Your task to perform on an android device: Search for flights from NYC to Tokyo Image 0: 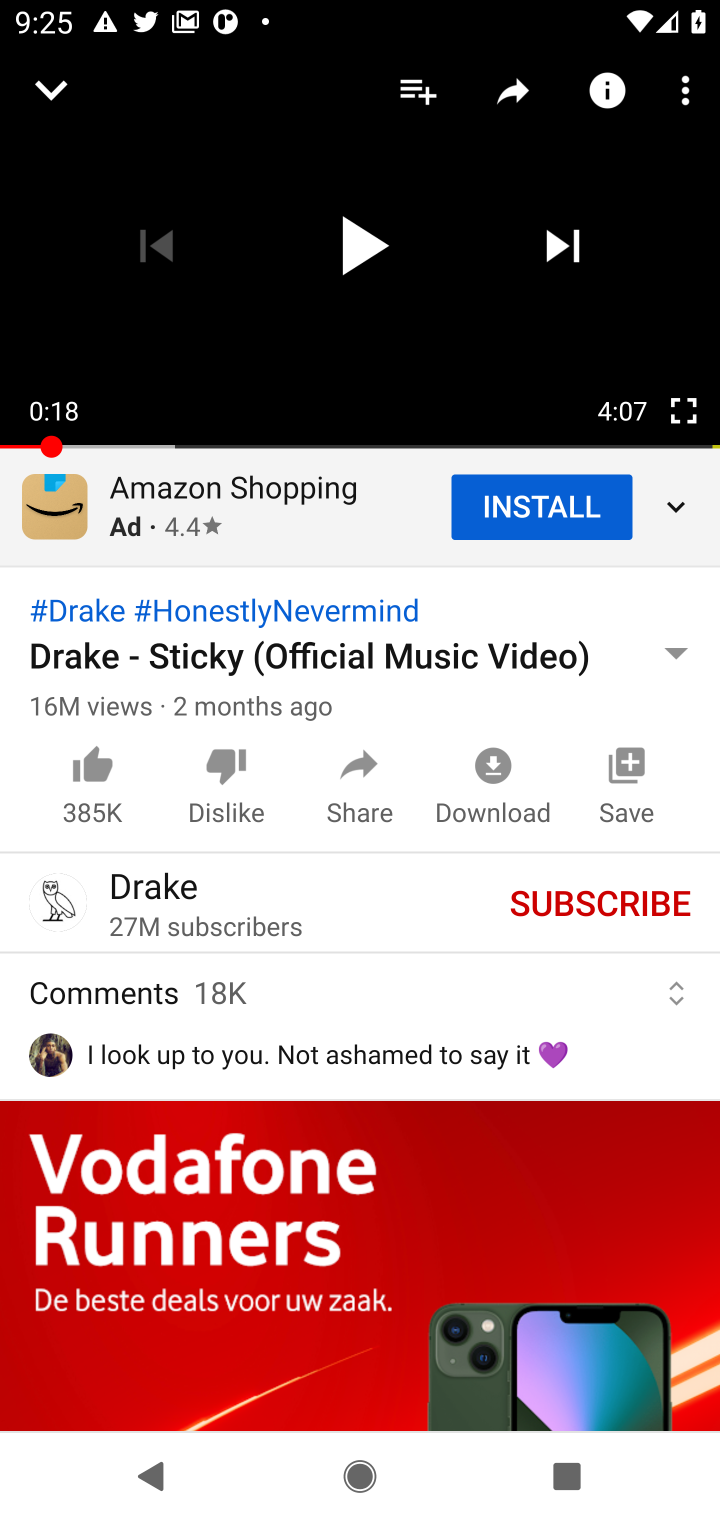
Step 0: press home button
Your task to perform on an android device: Search for flights from NYC to Tokyo Image 1: 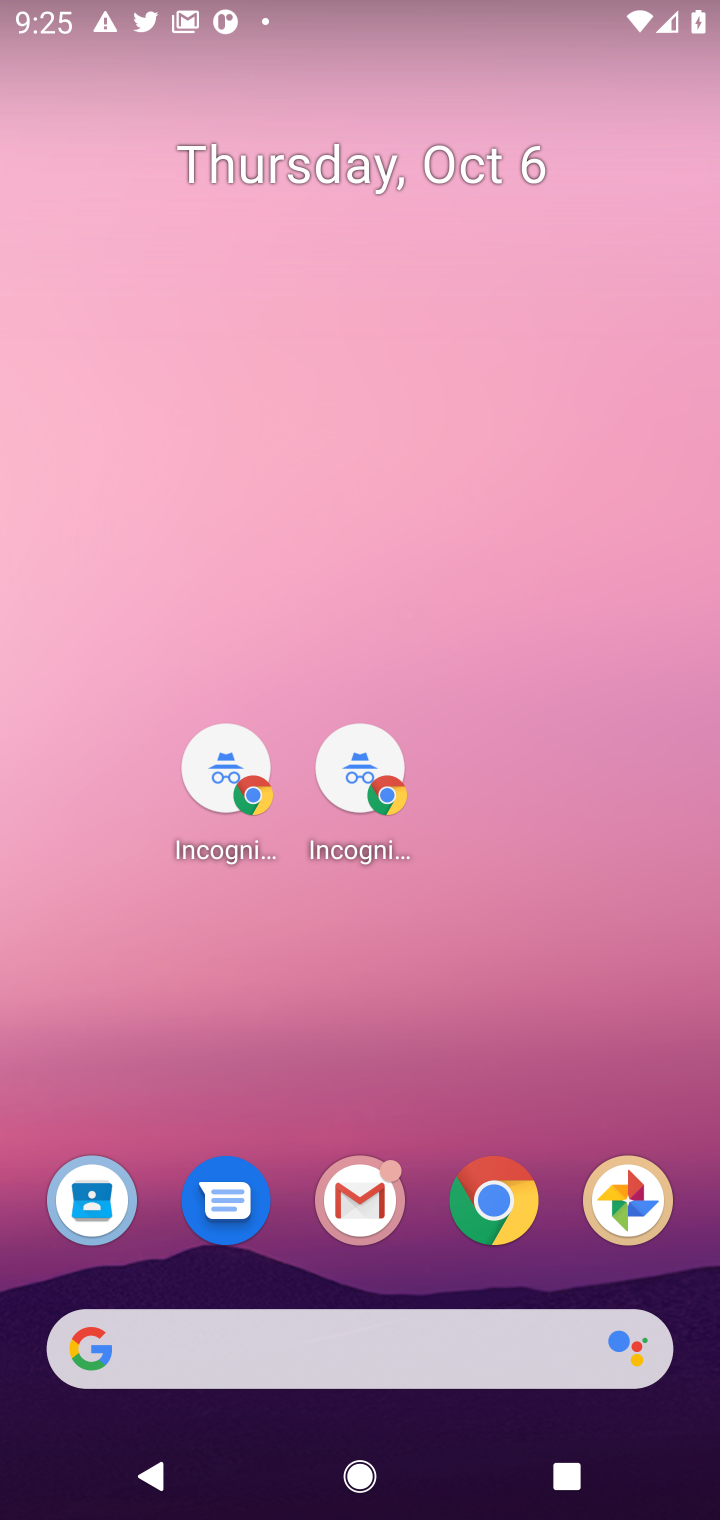
Step 1: click (494, 1192)
Your task to perform on an android device: Search for flights from NYC to Tokyo Image 2: 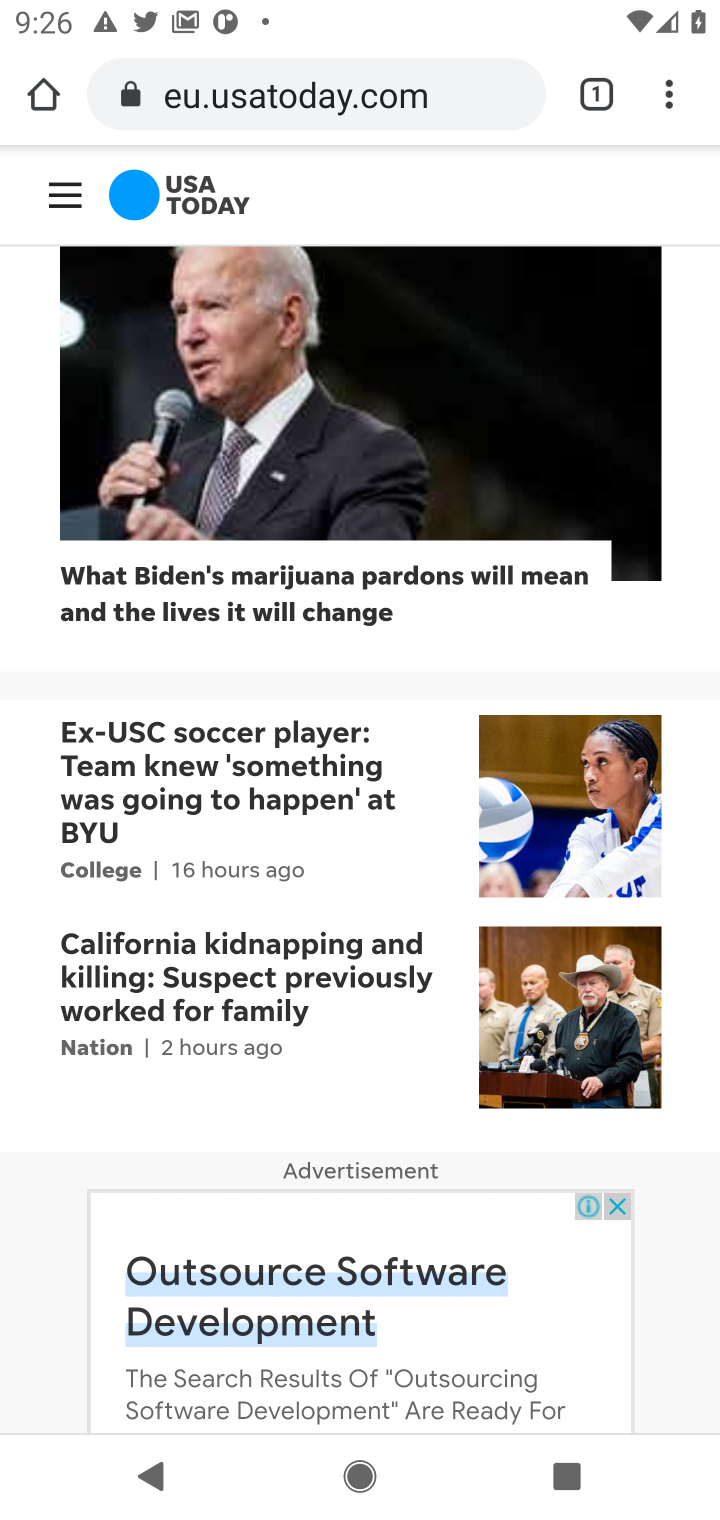
Step 2: click (319, 100)
Your task to perform on an android device: Search for flights from NYC to Tokyo Image 3: 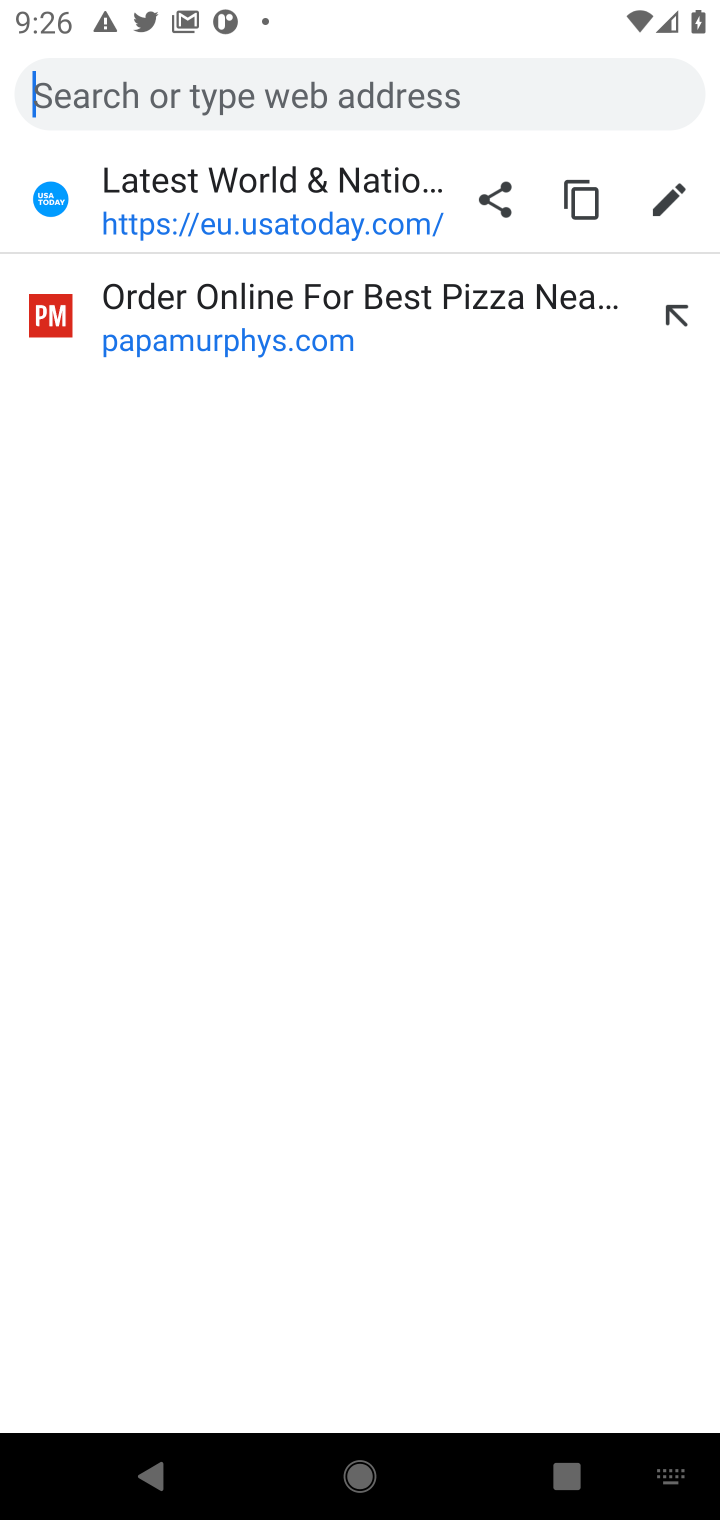
Step 3: type "flight from NYC to Tokyo"
Your task to perform on an android device: Search for flights from NYC to Tokyo Image 4: 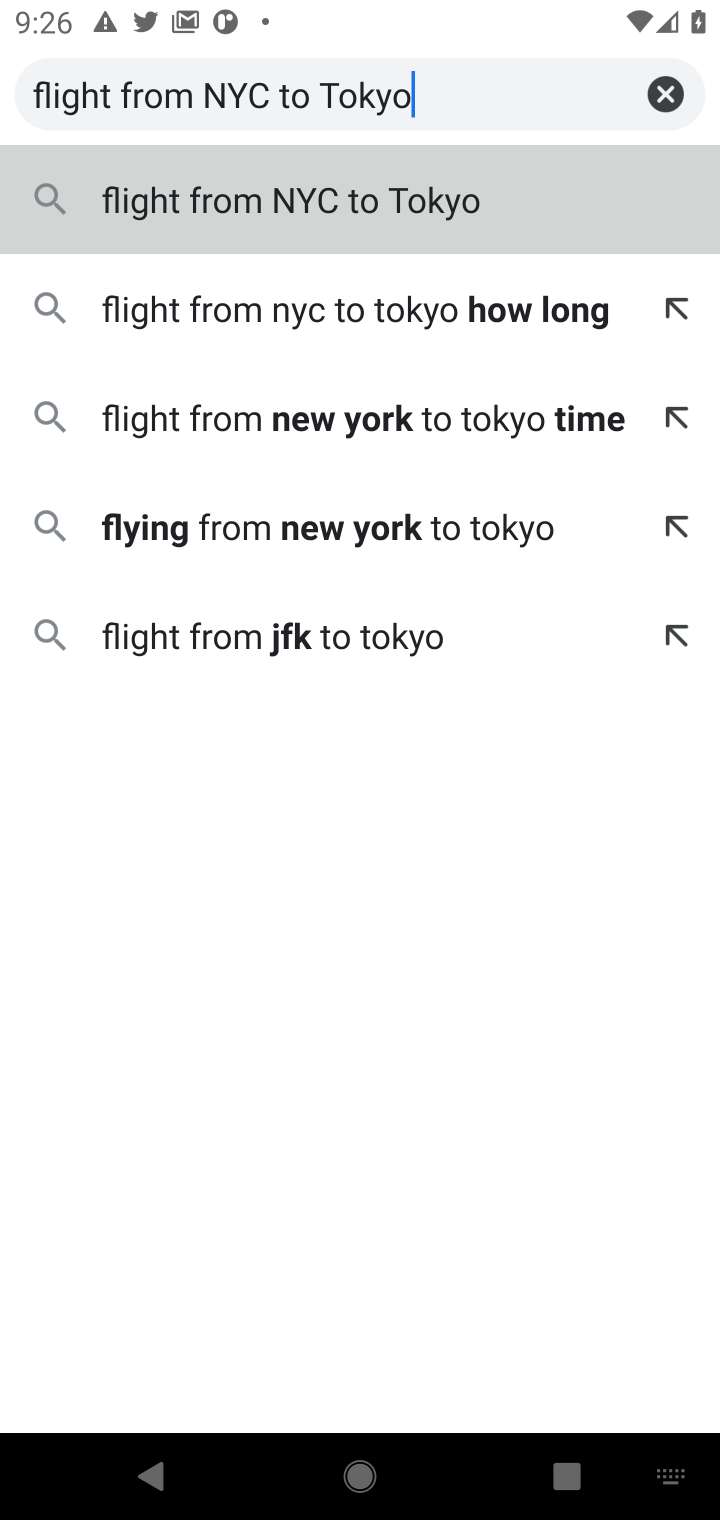
Step 4: type ""
Your task to perform on an android device: Search for flights from NYC to Tokyo Image 5: 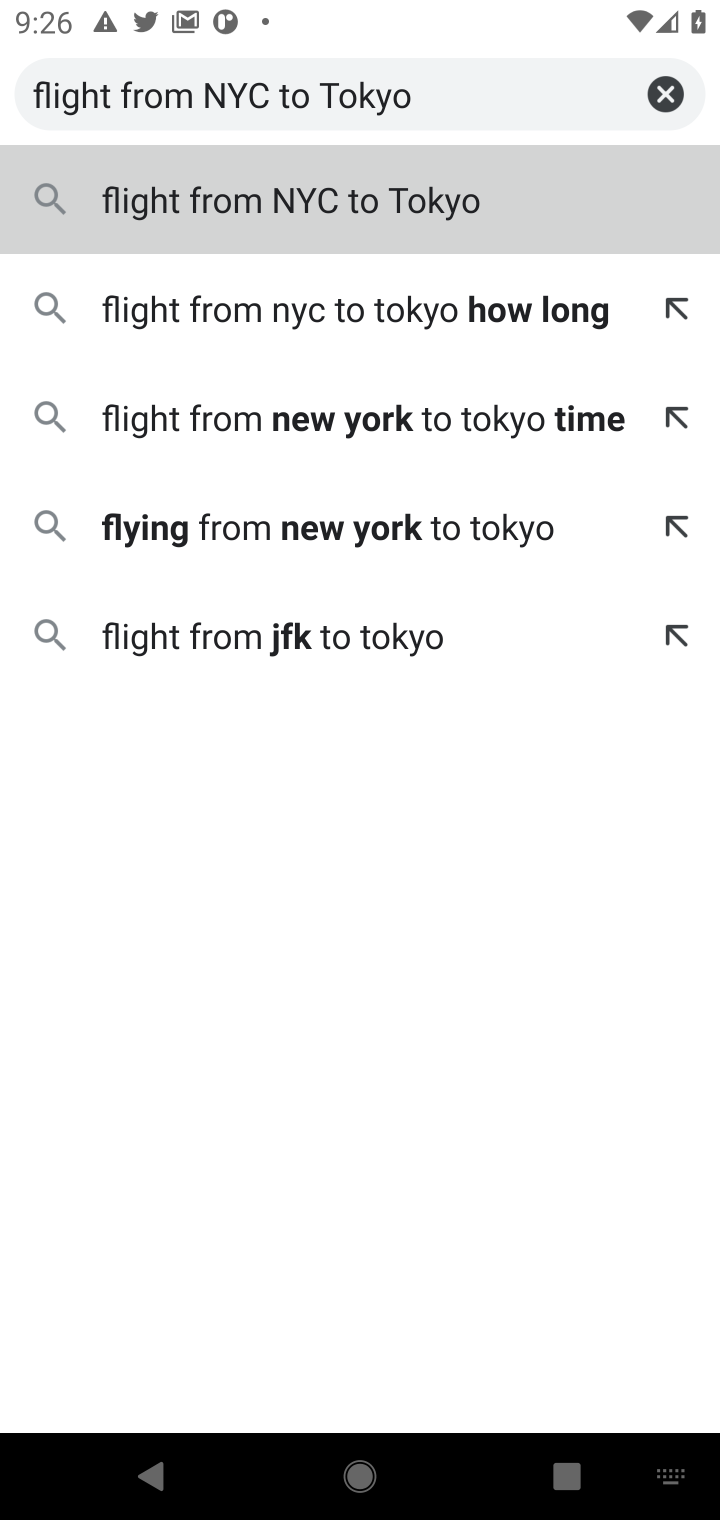
Step 5: click (351, 310)
Your task to perform on an android device: Search for flights from NYC to Tokyo Image 6: 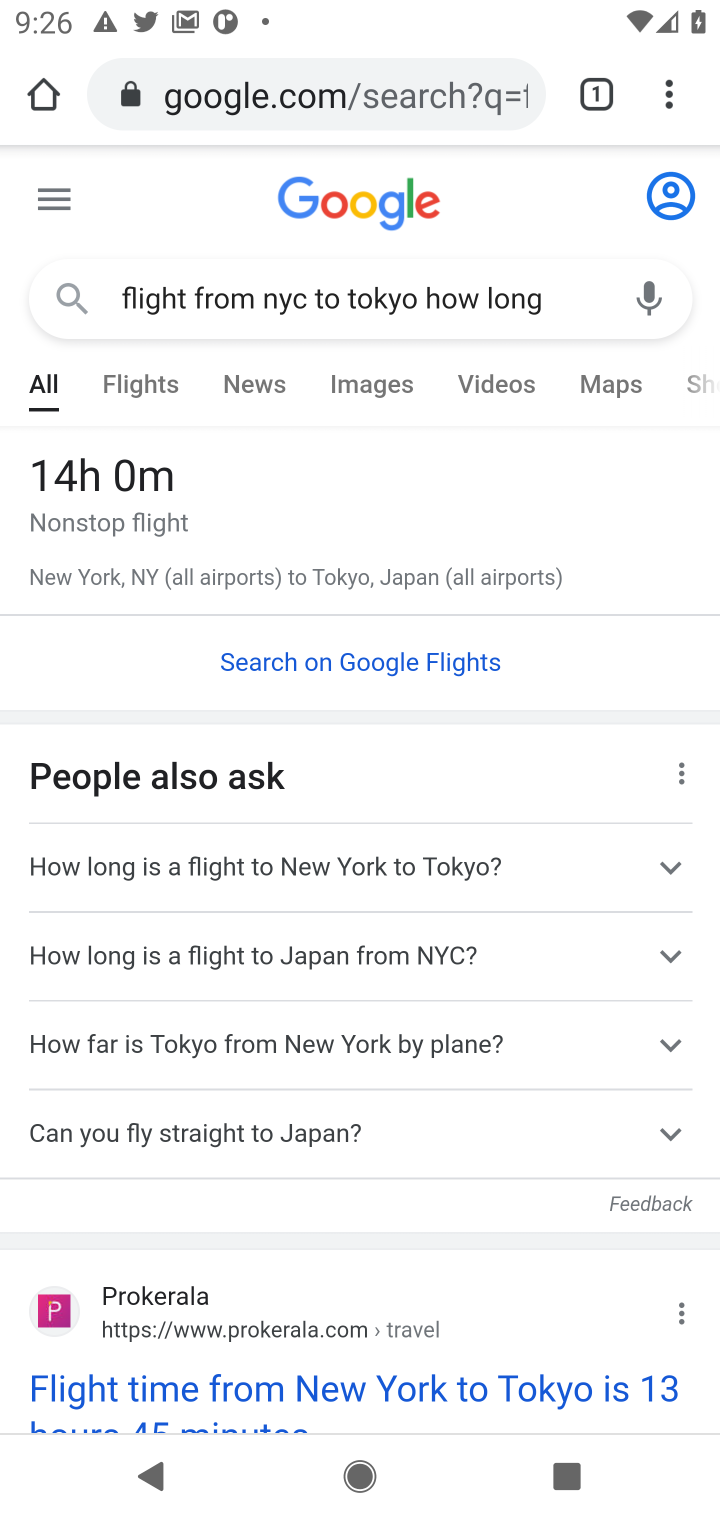
Step 6: drag from (434, 1201) to (544, 503)
Your task to perform on an android device: Search for flights from NYC to Tokyo Image 7: 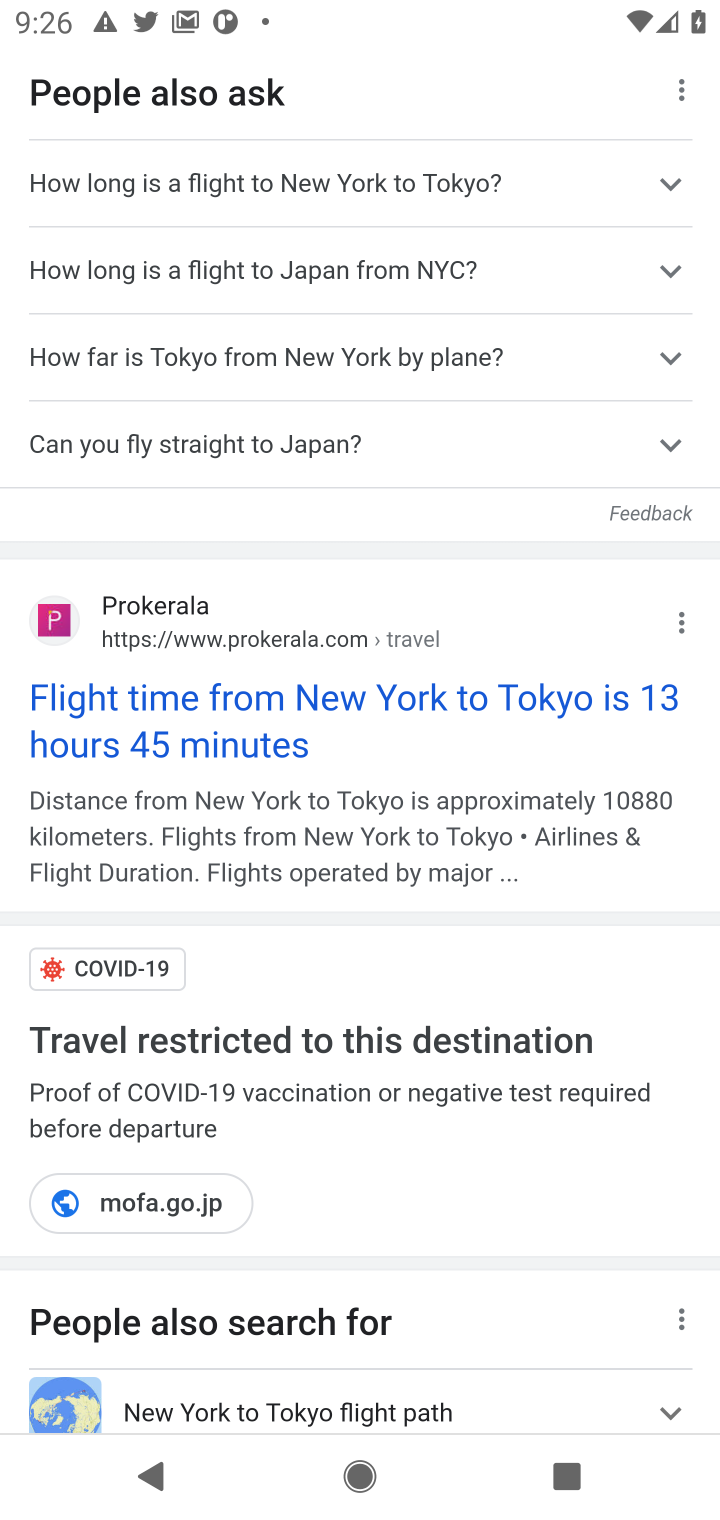
Step 7: drag from (280, 1219) to (332, 673)
Your task to perform on an android device: Search for flights from NYC to Tokyo Image 8: 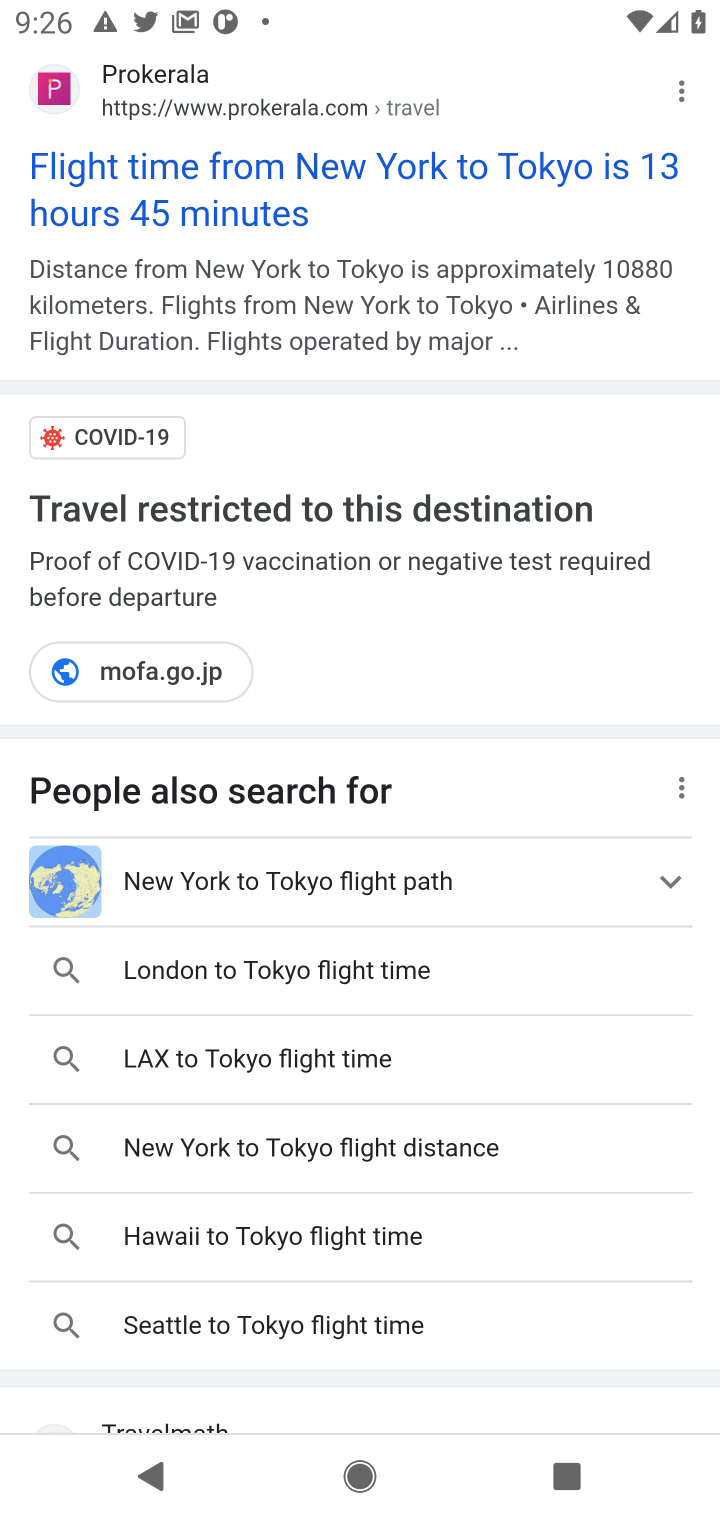
Step 8: drag from (326, 1331) to (319, 858)
Your task to perform on an android device: Search for flights from NYC to Tokyo Image 9: 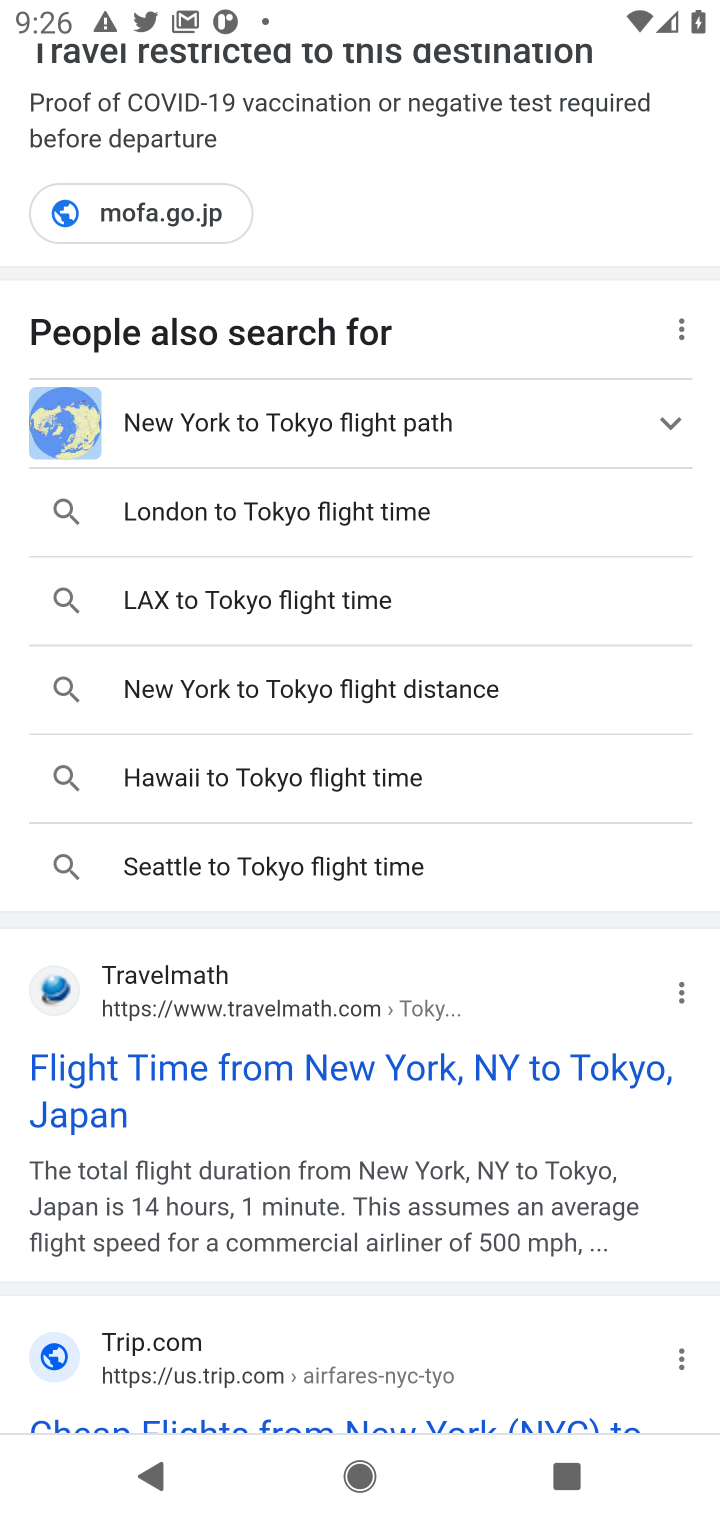
Step 9: drag from (397, 1145) to (523, 676)
Your task to perform on an android device: Search for flights from NYC to Tokyo Image 10: 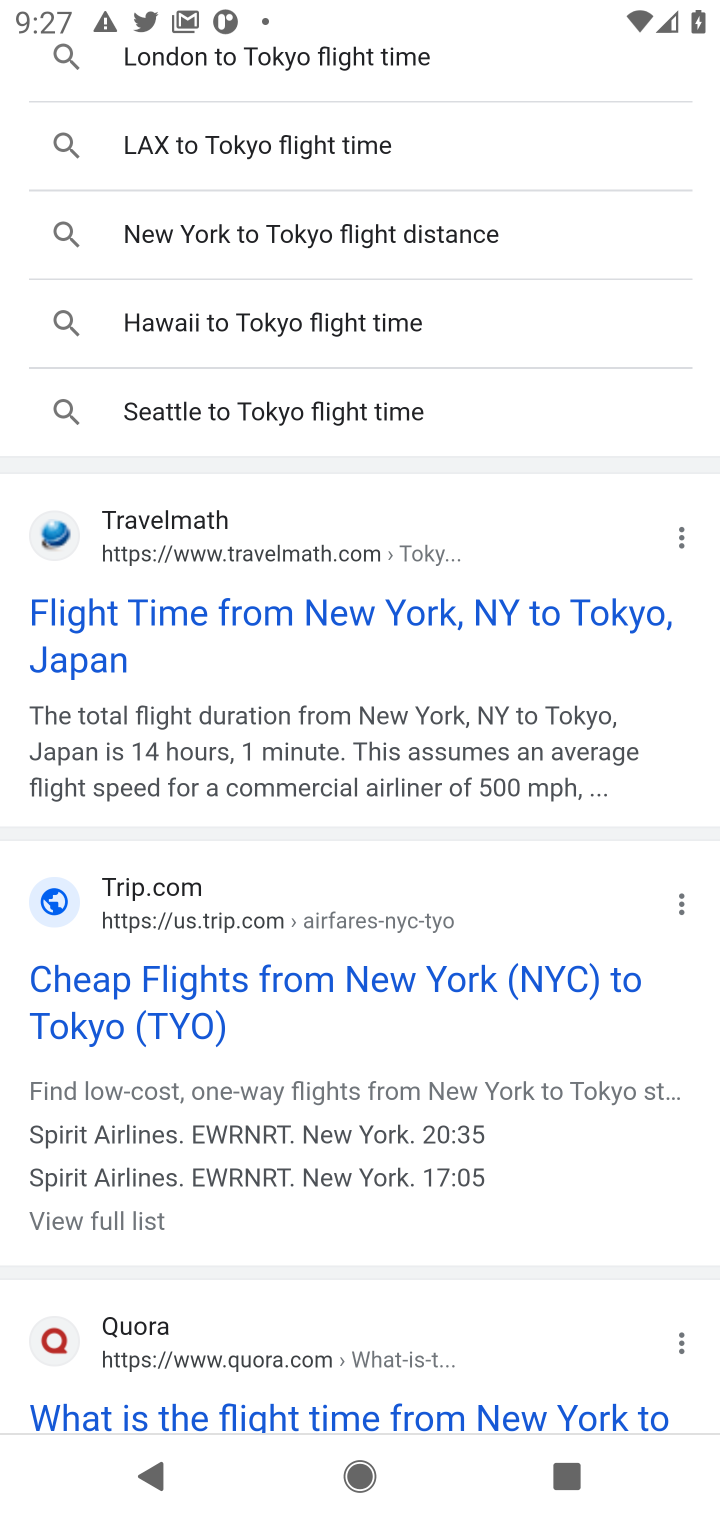
Step 10: click (298, 977)
Your task to perform on an android device: Search for flights from NYC to Tokyo Image 11: 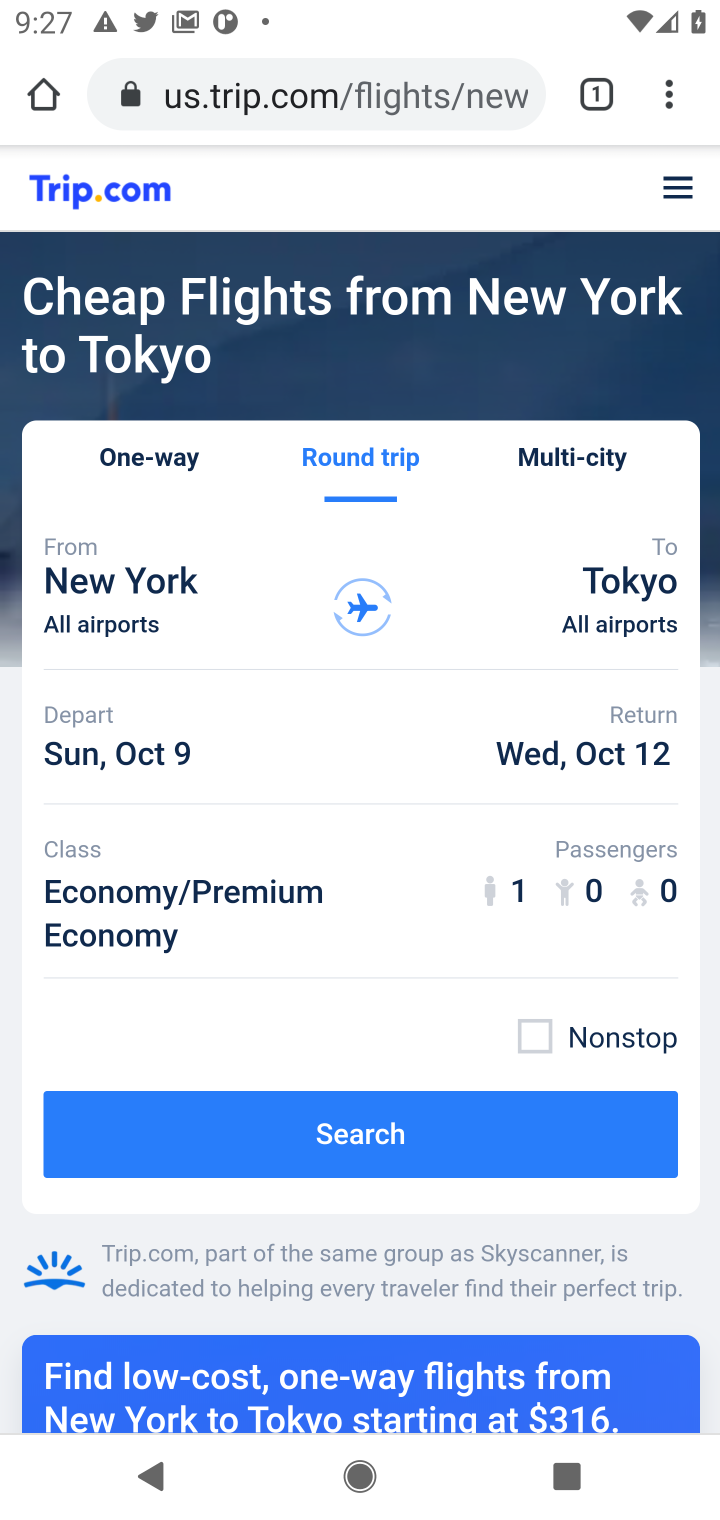
Step 11: click (396, 1146)
Your task to perform on an android device: Search for flights from NYC to Tokyo Image 12: 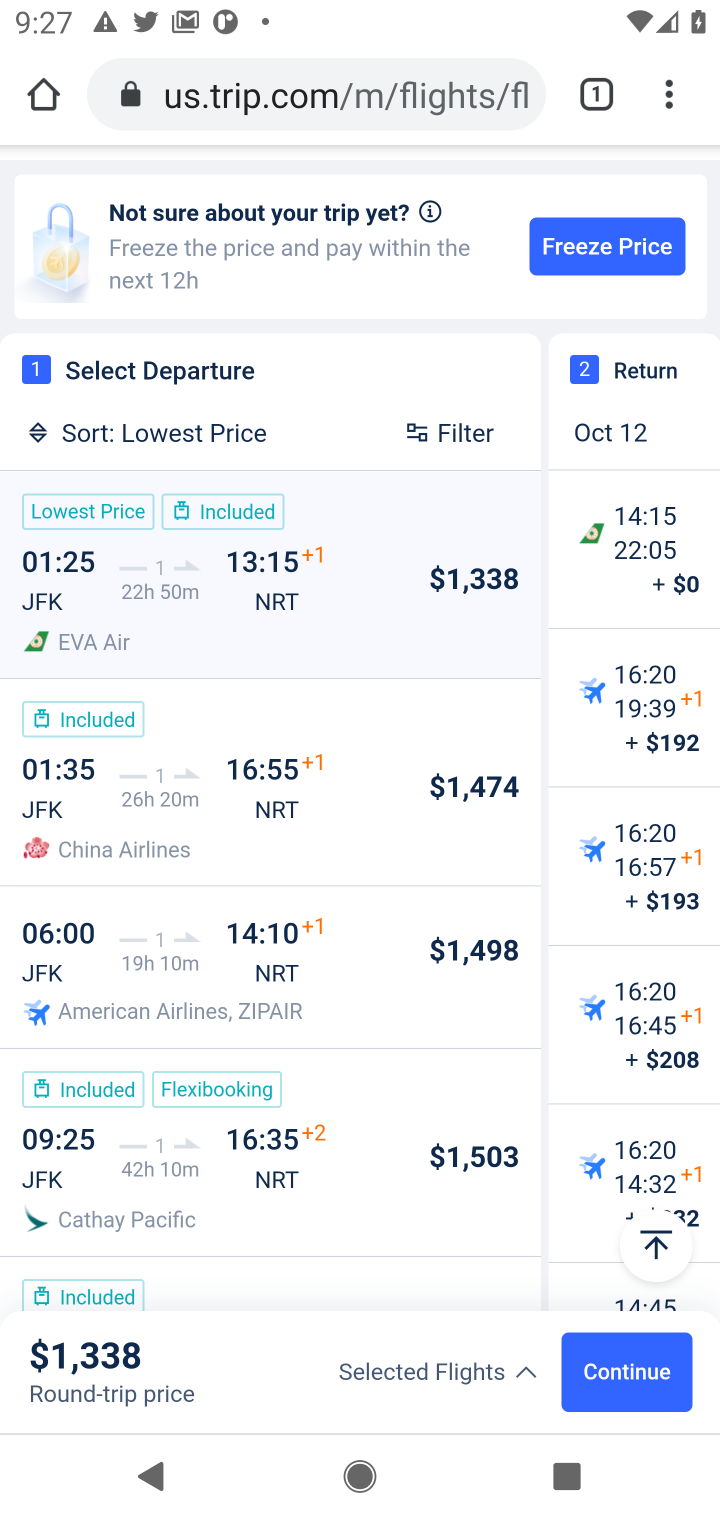
Step 12: task complete